Your task to perform on an android device: turn off wifi Image 0: 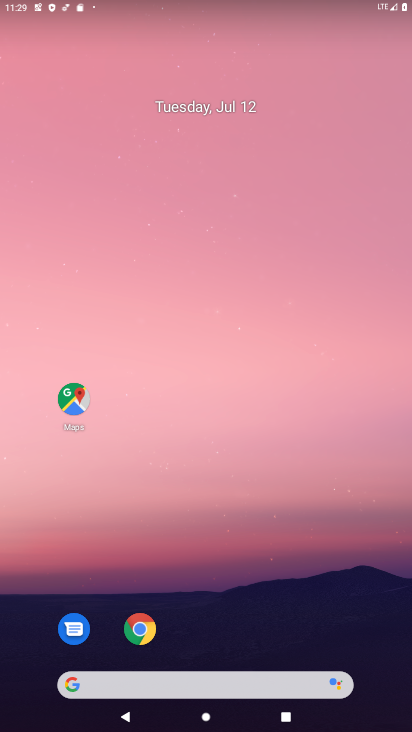
Step 0: press home button
Your task to perform on an android device: turn off wifi Image 1: 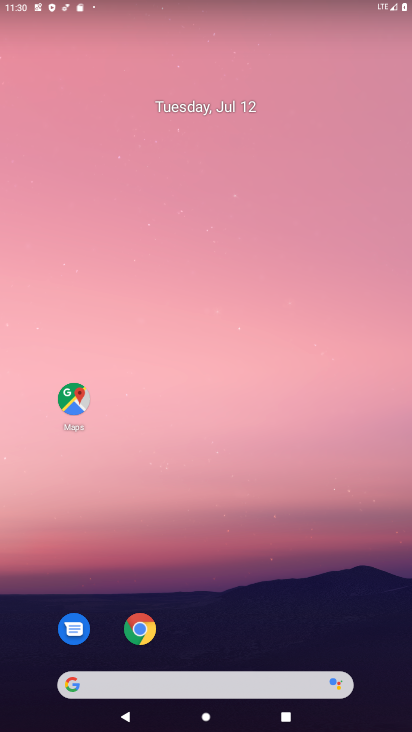
Step 1: drag from (183, 7) to (196, 566)
Your task to perform on an android device: turn off wifi Image 2: 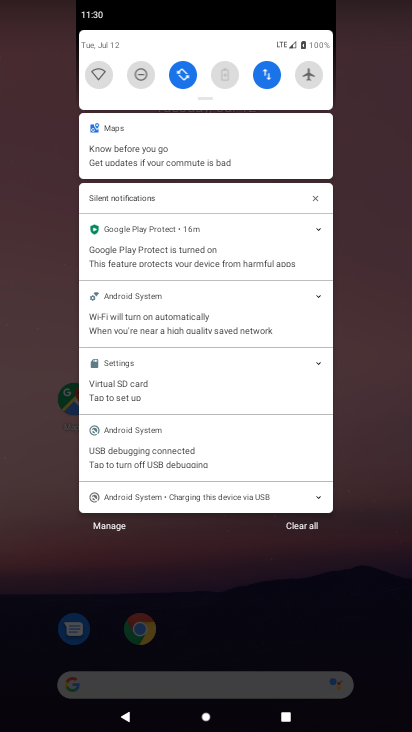
Step 2: click (96, 67)
Your task to perform on an android device: turn off wifi Image 3: 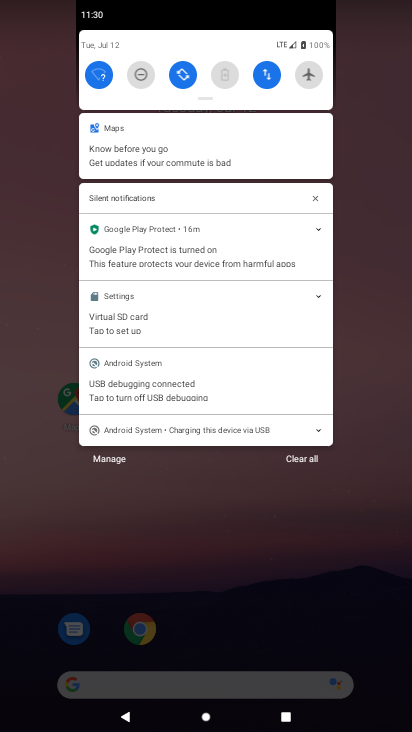
Step 3: click (96, 67)
Your task to perform on an android device: turn off wifi Image 4: 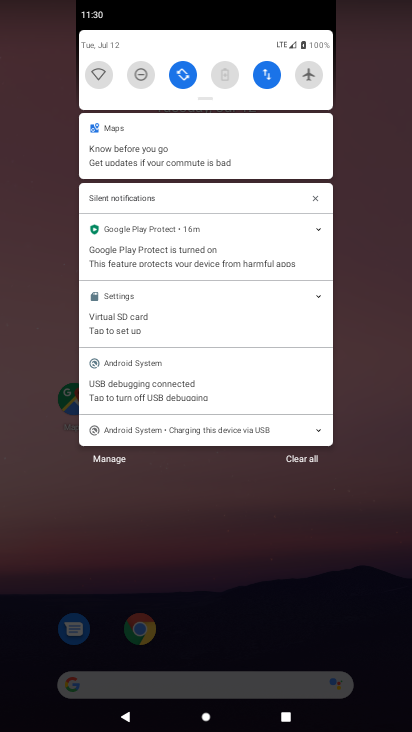
Step 4: task complete